Your task to perform on an android device: check out phone information Image 0: 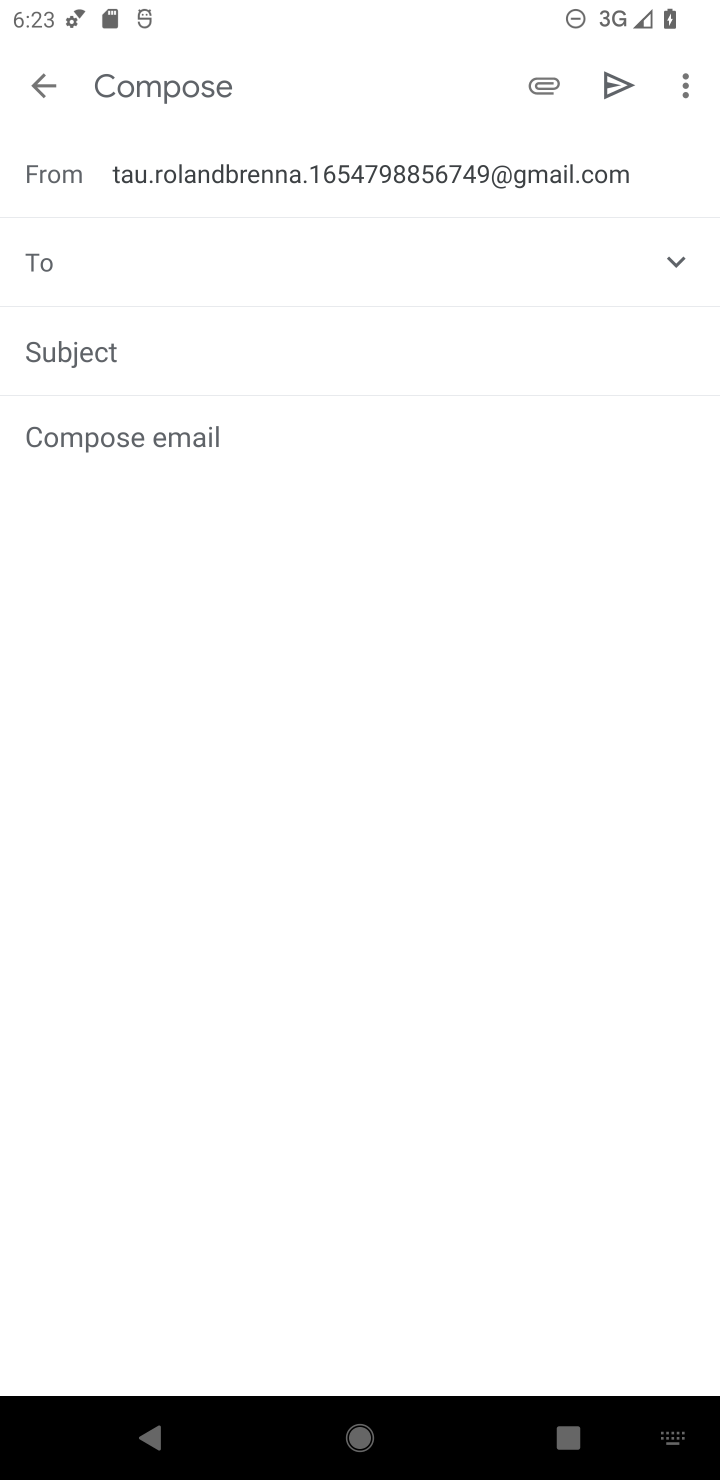
Step 0: press home button
Your task to perform on an android device: check out phone information Image 1: 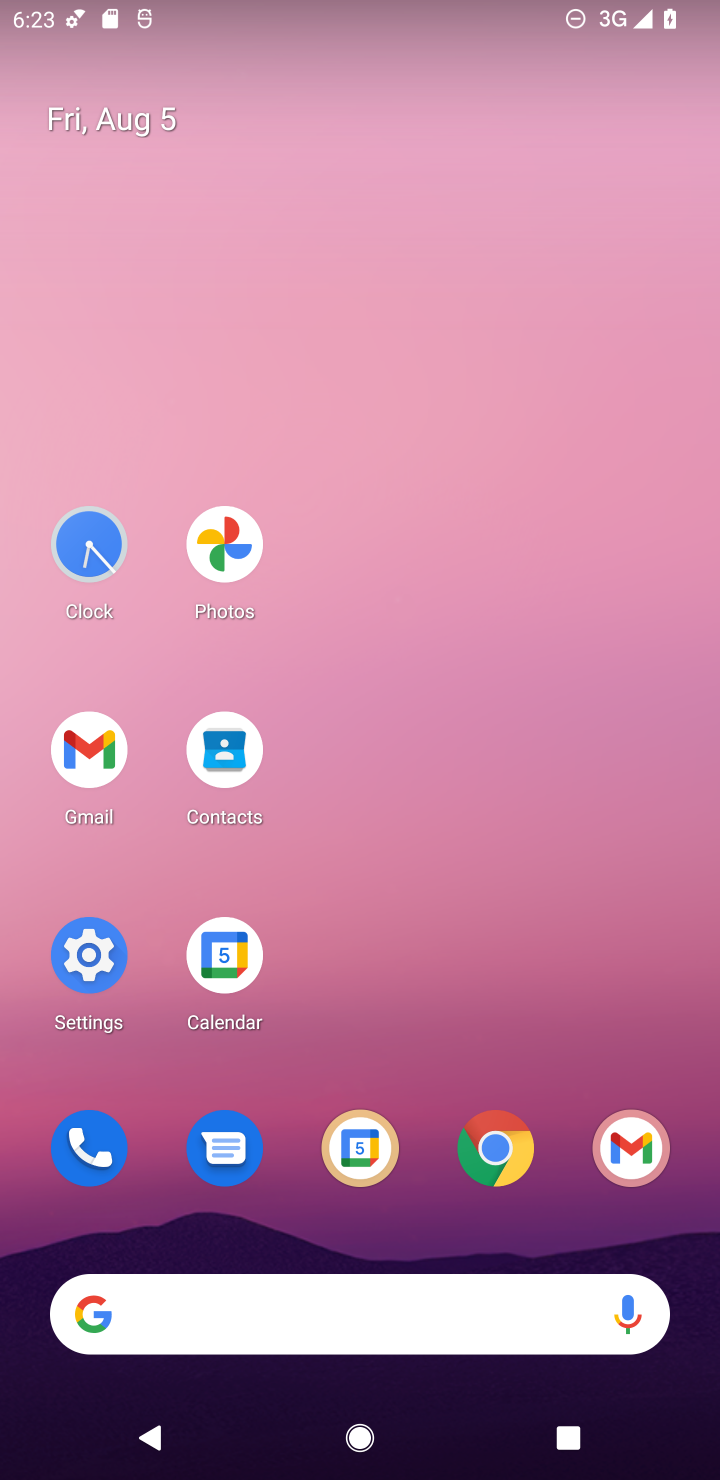
Step 1: click (74, 943)
Your task to perform on an android device: check out phone information Image 2: 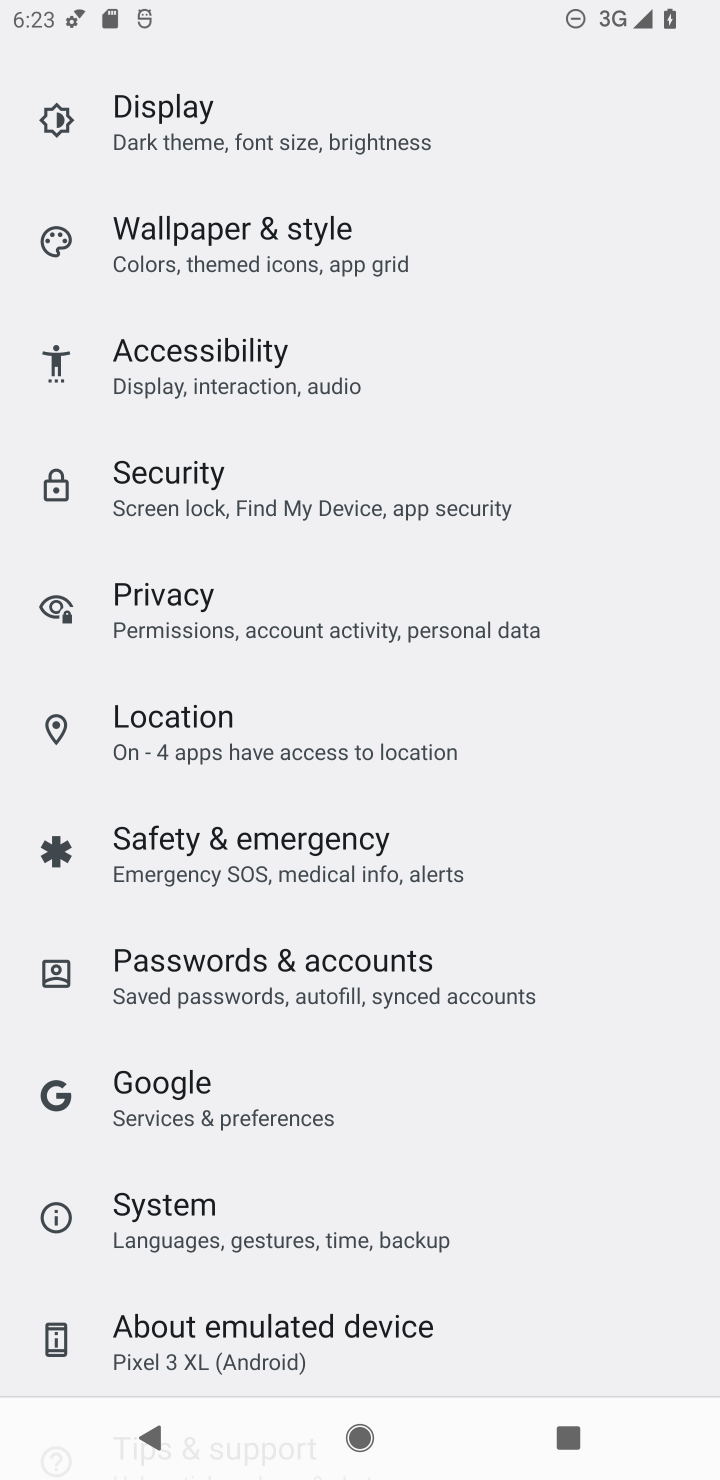
Step 2: click (203, 1328)
Your task to perform on an android device: check out phone information Image 3: 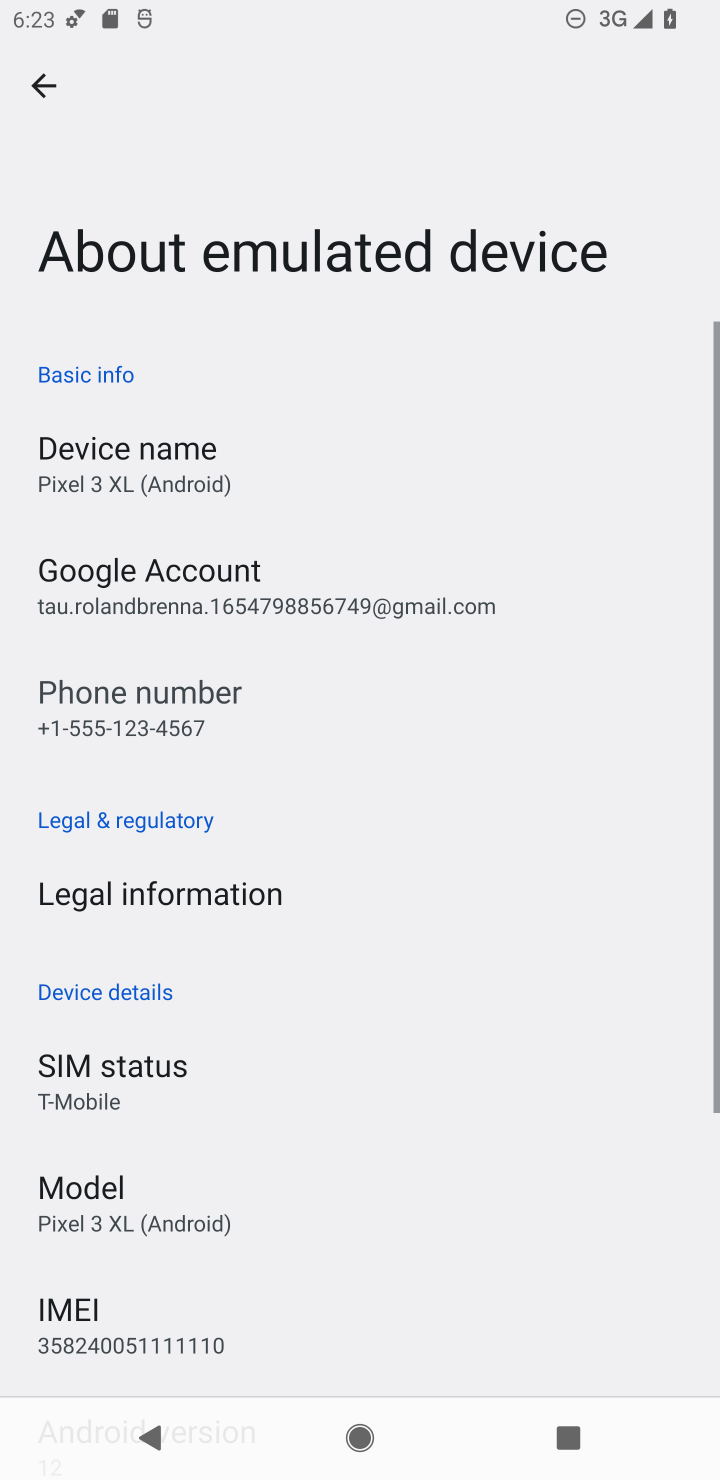
Step 3: task complete